Your task to perform on an android device: open app "Move to iOS" Image 0: 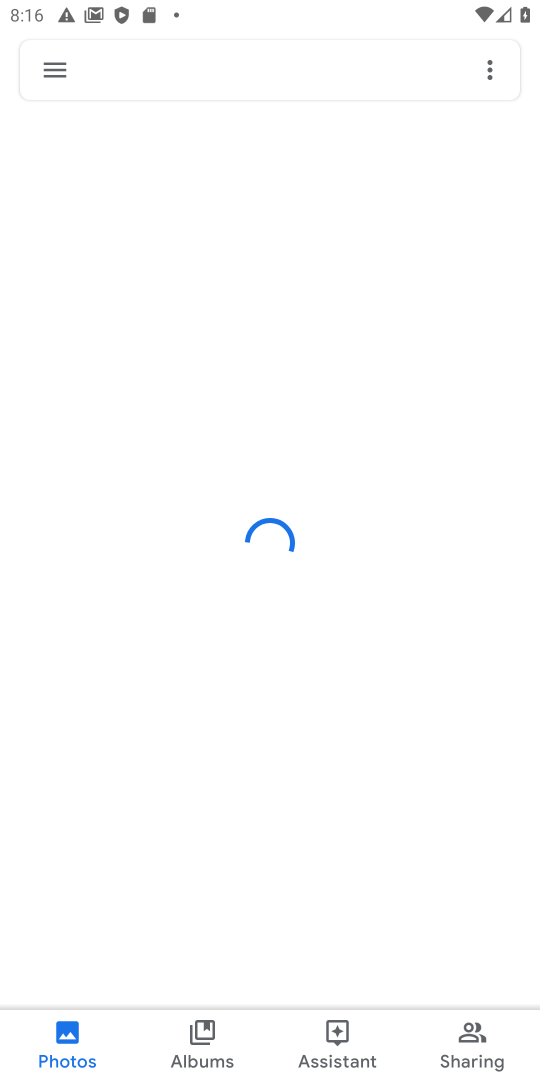
Step 0: press back button
Your task to perform on an android device: open app "Move to iOS" Image 1: 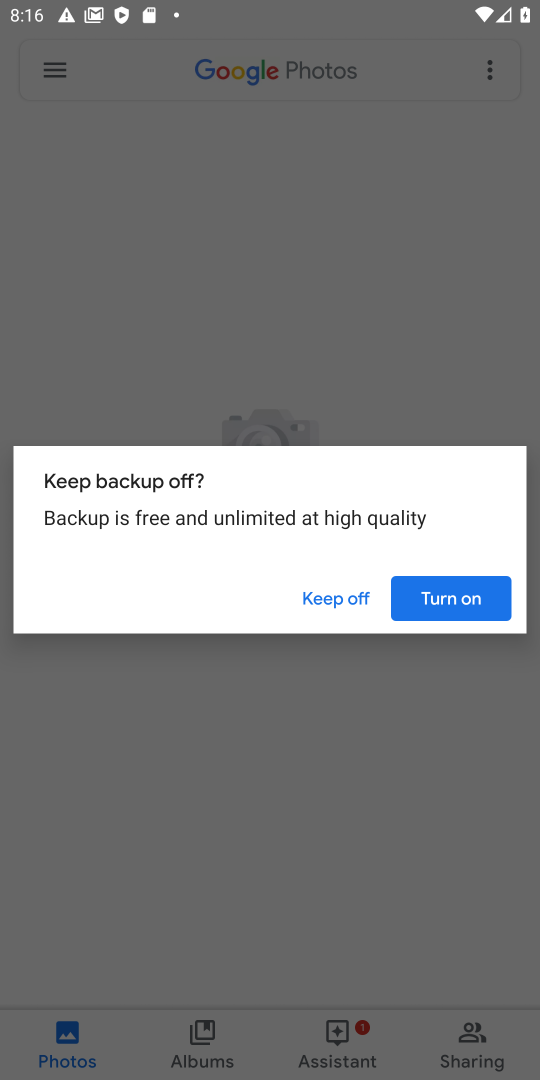
Step 1: press home button
Your task to perform on an android device: open app "Move to iOS" Image 2: 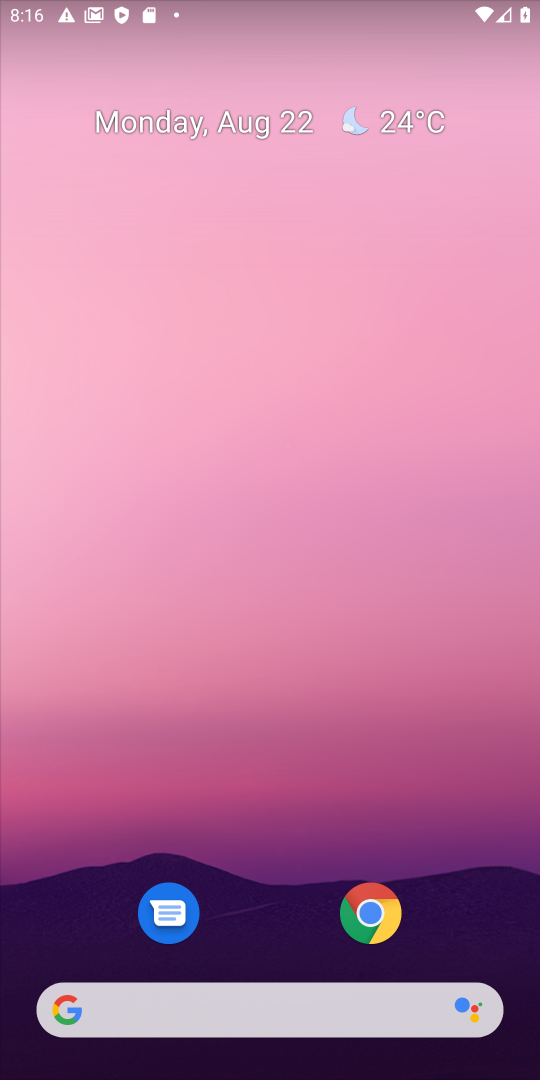
Step 2: drag from (272, 1010) to (252, 430)
Your task to perform on an android device: open app "Move to iOS" Image 3: 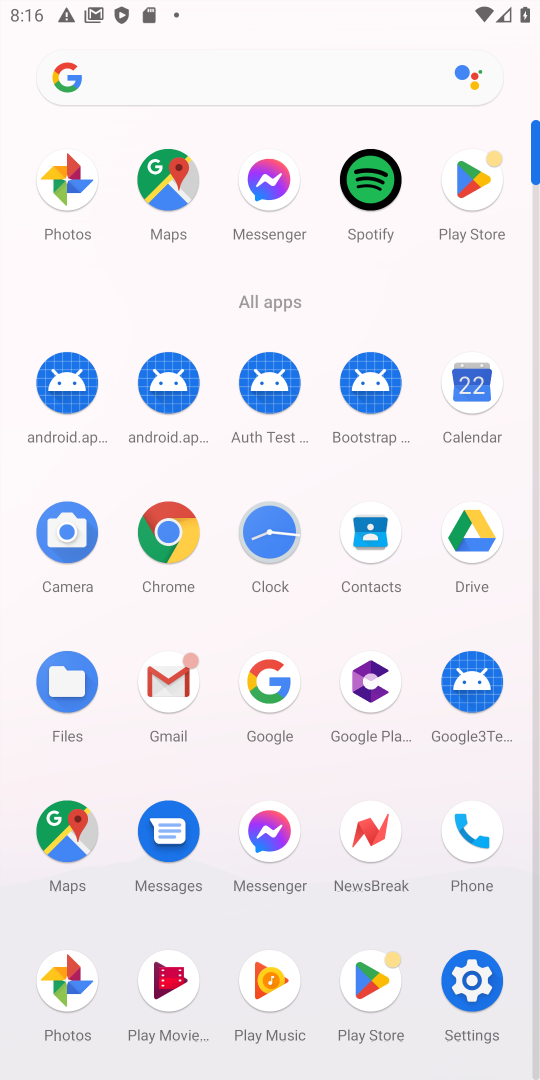
Step 3: click (491, 179)
Your task to perform on an android device: open app "Move to iOS" Image 4: 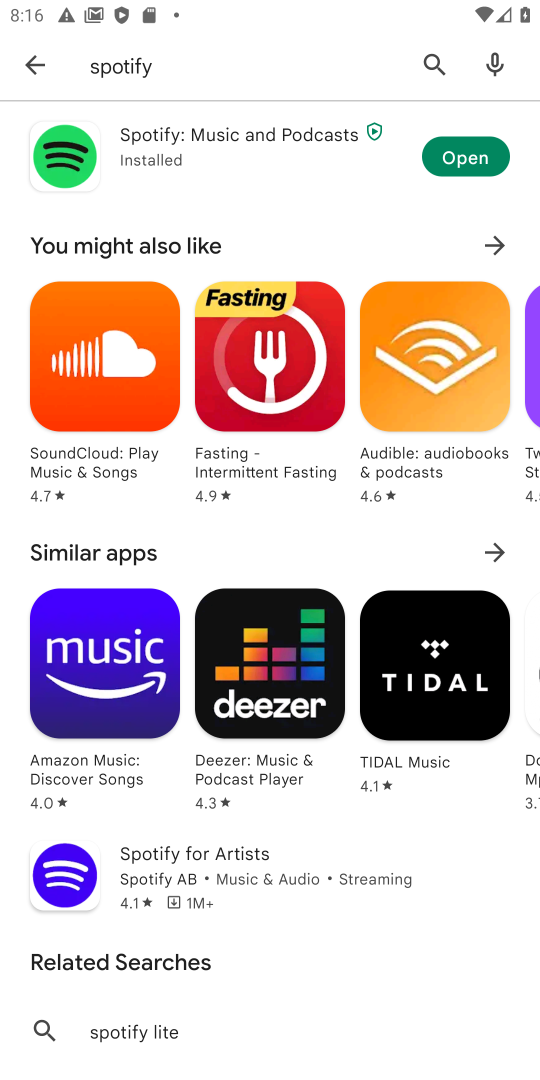
Step 4: click (423, 58)
Your task to perform on an android device: open app "Move to iOS" Image 5: 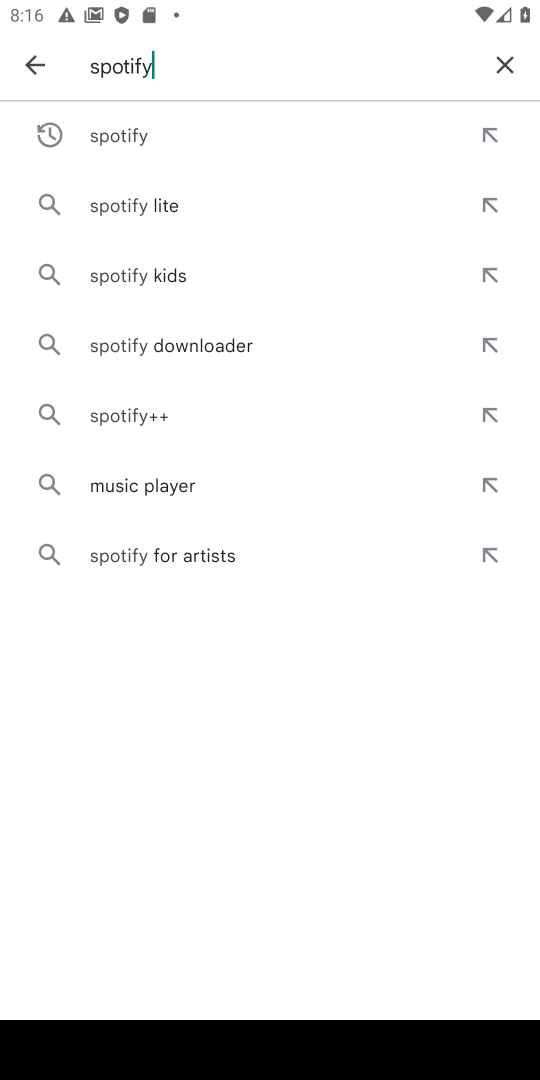
Step 5: click (508, 73)
Your task to perform on an android device: open app "Move to iOS" Image 6: 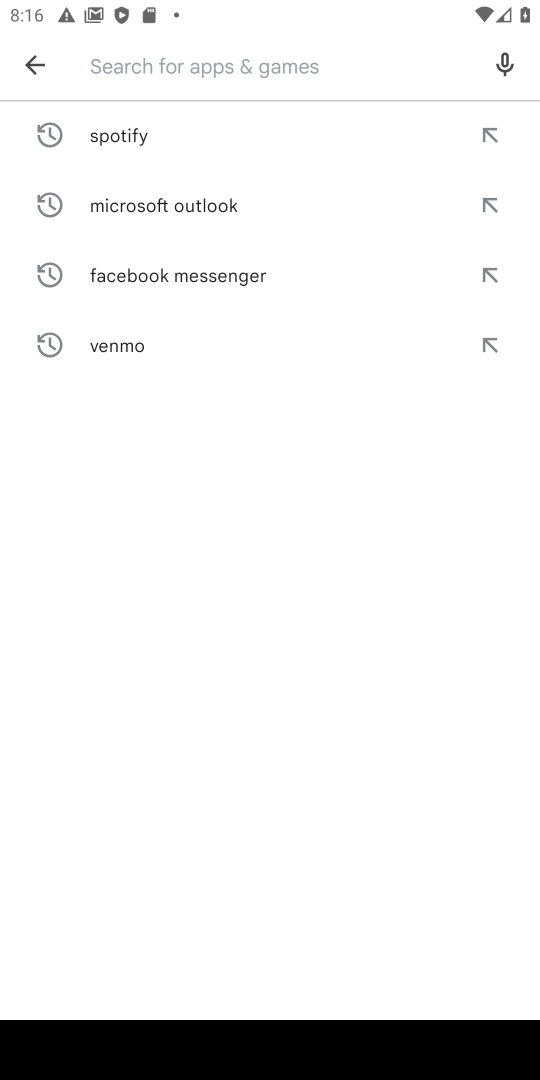
Step 6: type "move to ios"
Your task to perform on an android device: open app "Move to iOS" Image 7: 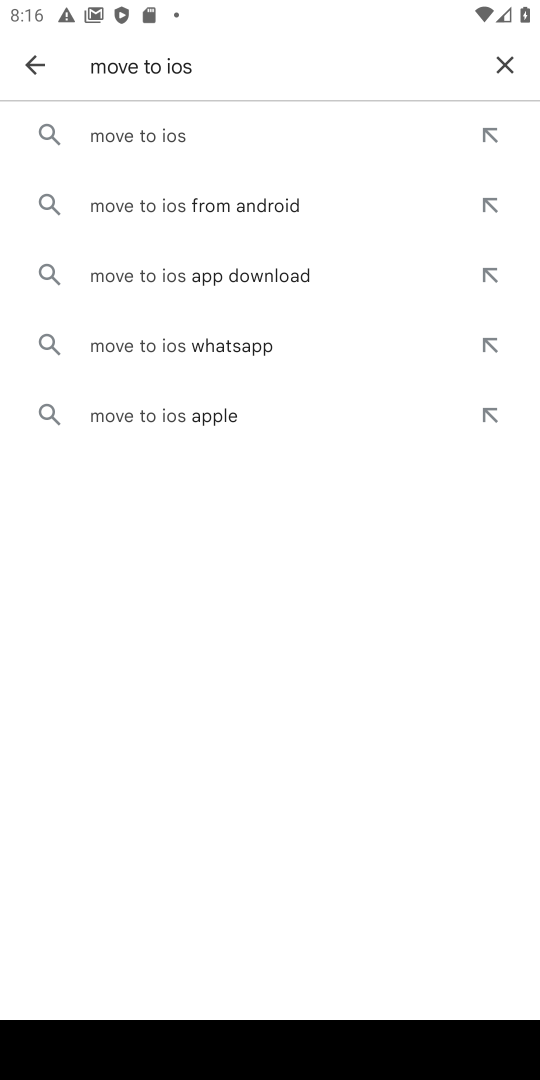
Step 7: click (132, 132)
Your task to perform on an android device: open app "Move to iOS" Image 8: 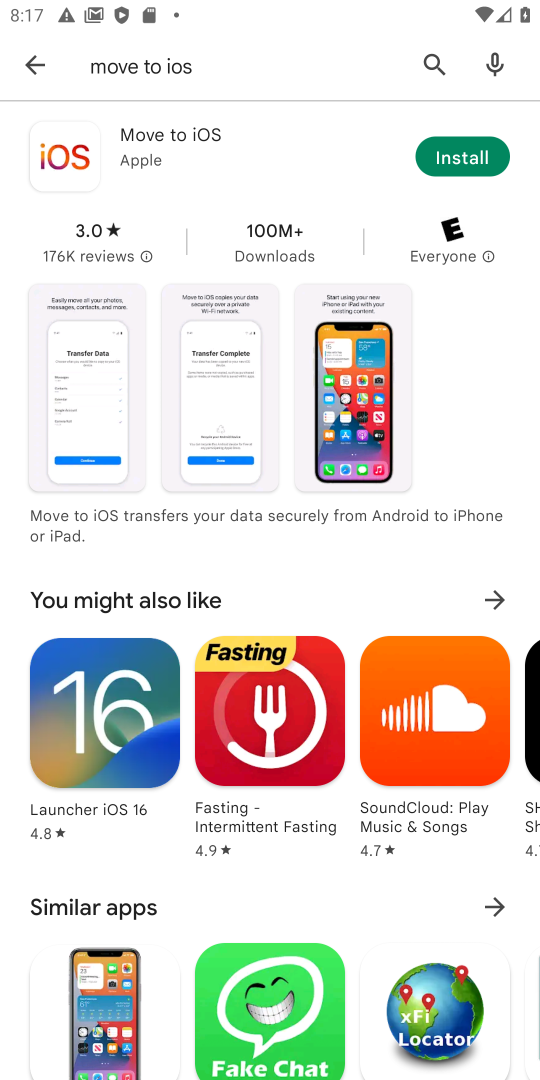
Step 8: task complete